Your task to perform on an android device: Go to privacy settings Image 0: 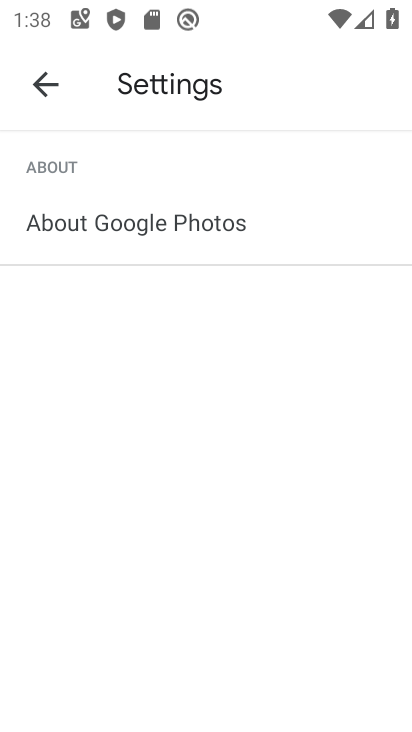
Step 0: press home button
Your task to perform on an android device: Go to privacy settings Image 1: 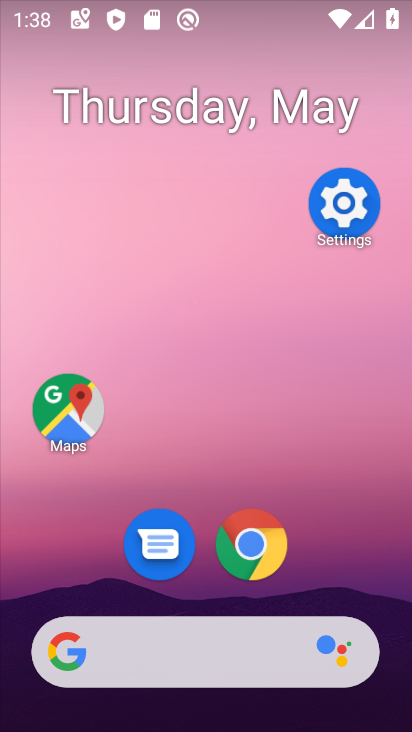
Step 1: click (330, 205)
Your task to perform on an android device: Go to privacy settings Image 2: 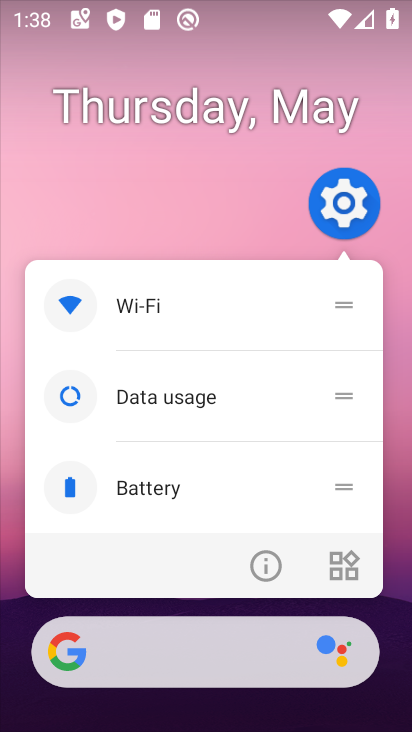
Step 2: click (332, 204)
Your task to perform on an android device: Go to privacy settings Image 3: 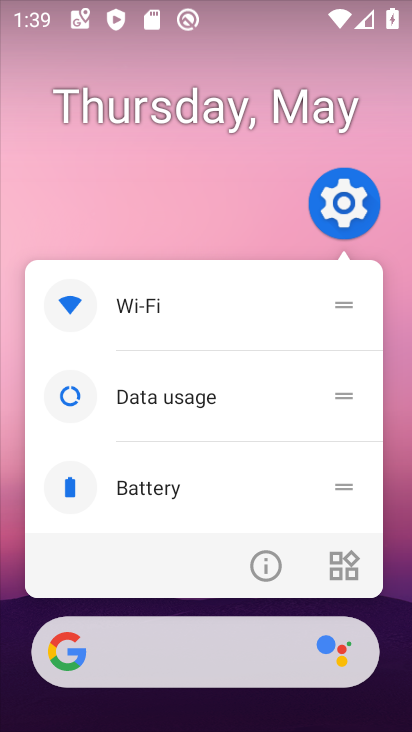
Step 3: click (343, 204)
Your task to perform on an android device: Go to privacy settings Image 4: 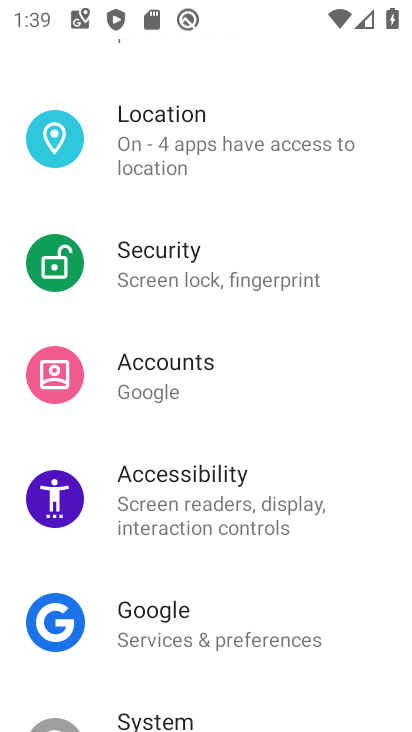
Step 4: drag from (255, 613) to (259, 660)
Your task to perform on an android device: Go to privacy settings Image 5: 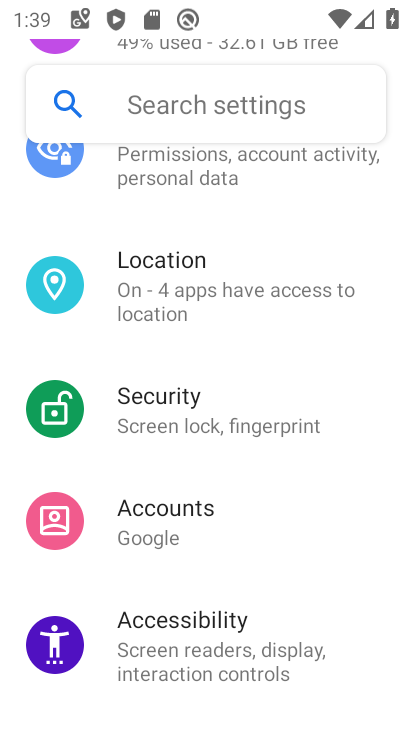
Step 5: drag from (249, 295) to (252, 515)
Your task to perform on an android device: Go to privacy settings Image 6: 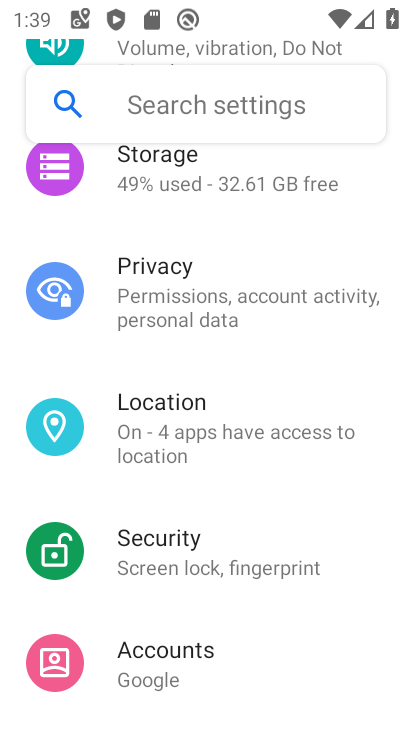
Step 6: click (203, 315)
Your task to perform on an android device: Go to privacy settings Image 7: 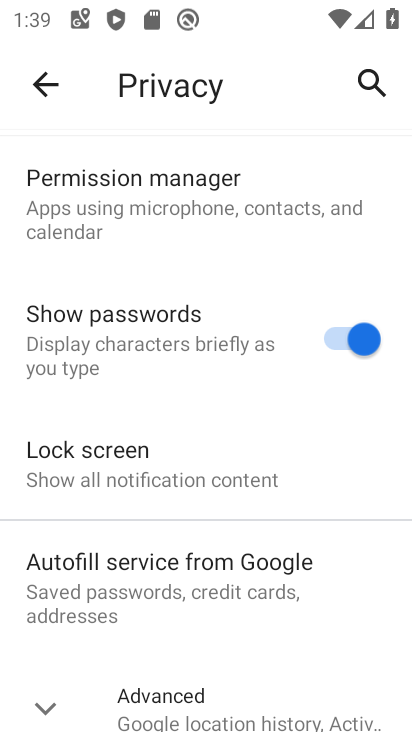
Step 7: task complete